Your task to perform on an android device: Open settings Image 0: 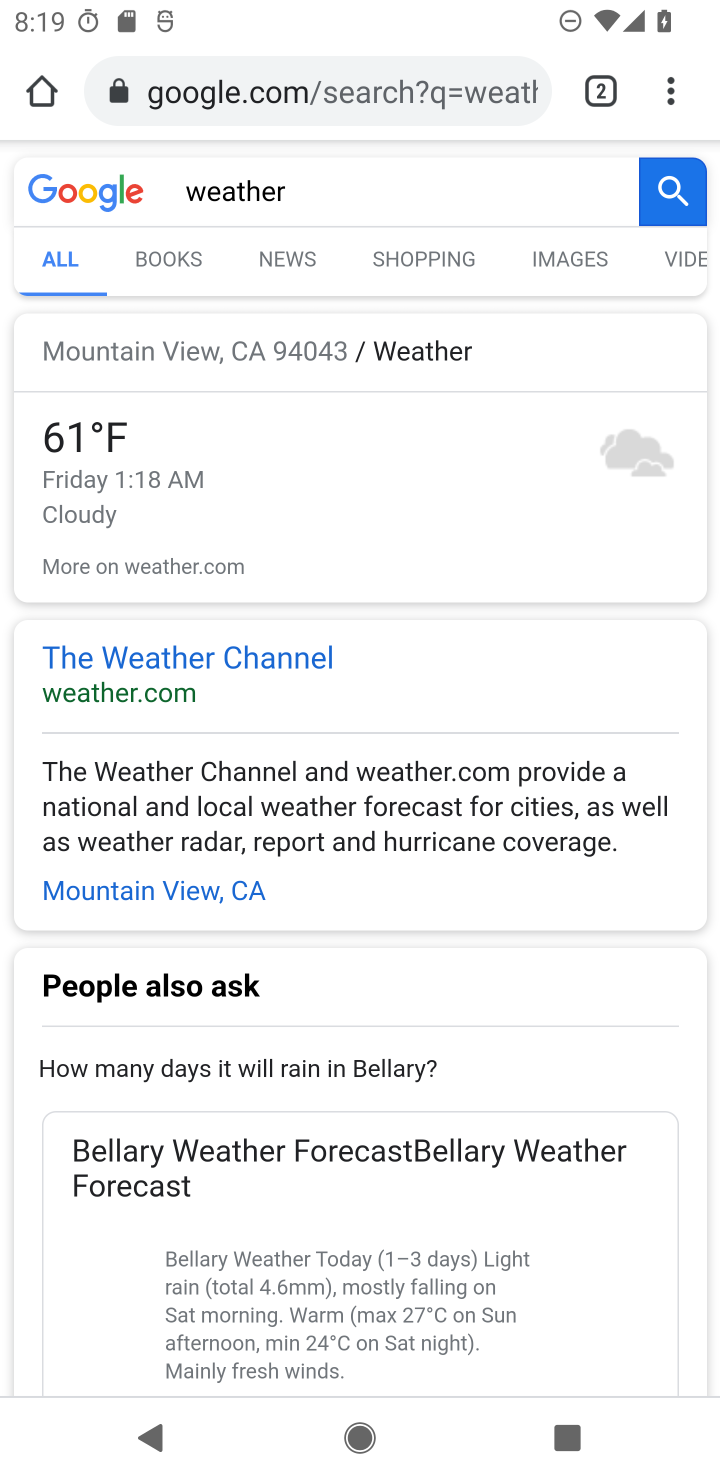
Step 0: press home button
Your task to perform on an android device: Open settings Image 1: 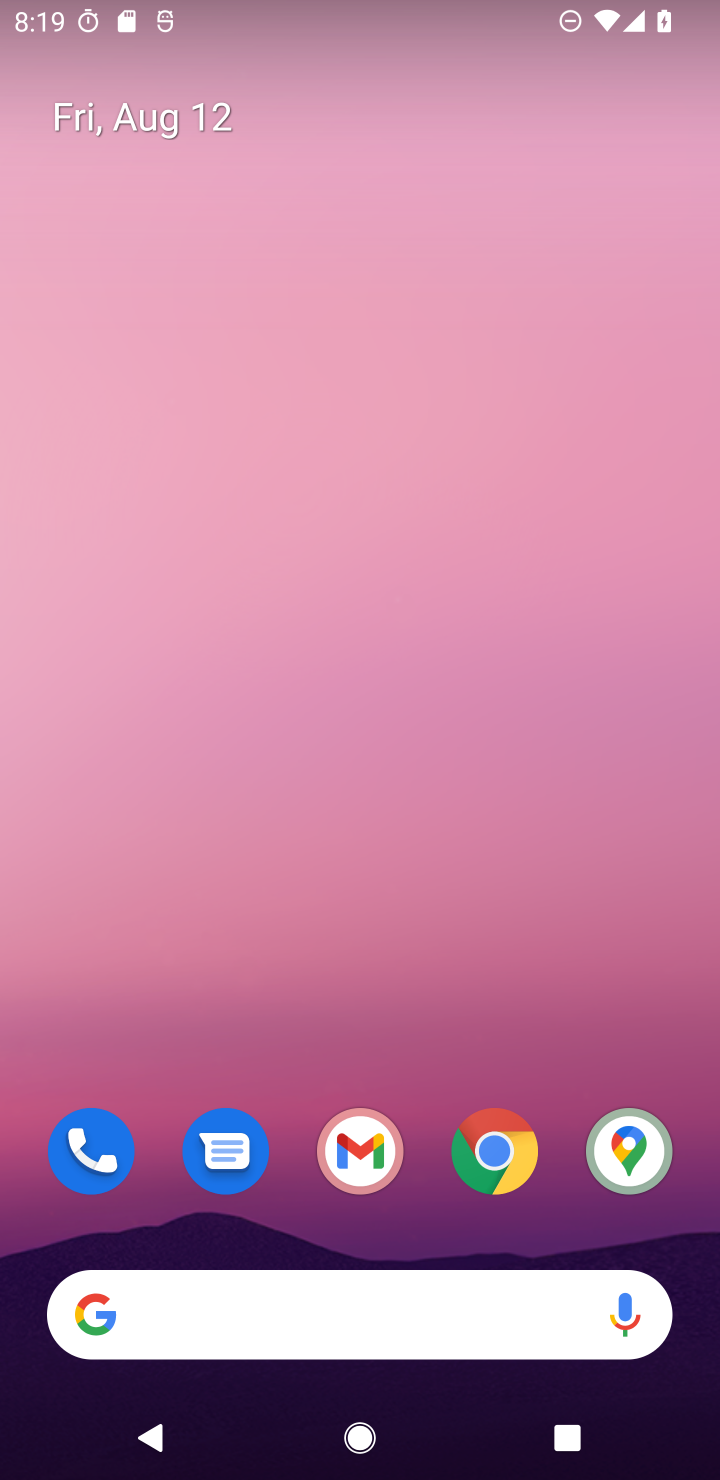
Step 1: drag from (397, 1010) to (513, 0)
Your task to perform on an android device: Open settings Image 2: 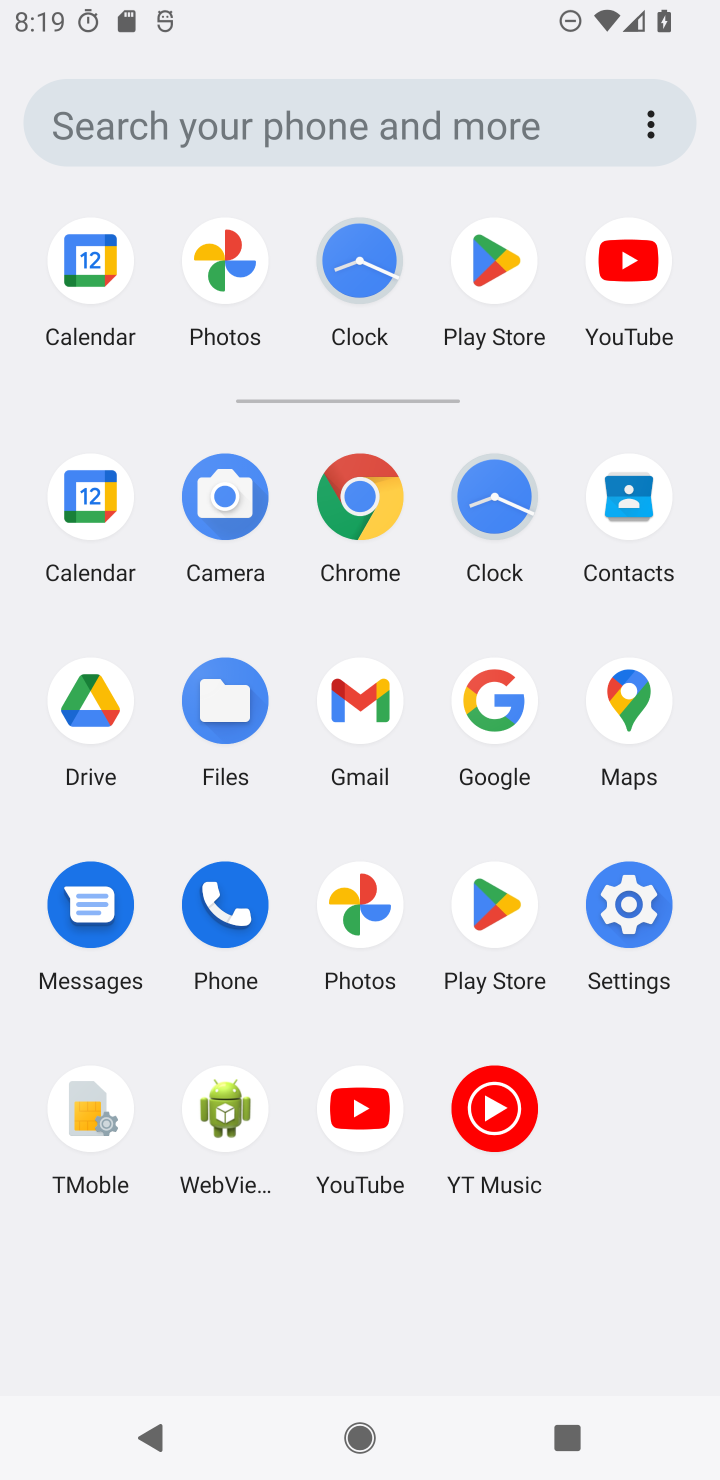
Step 2: click (653, 909)
Your task to perform on an android device: Open settings Image 3: 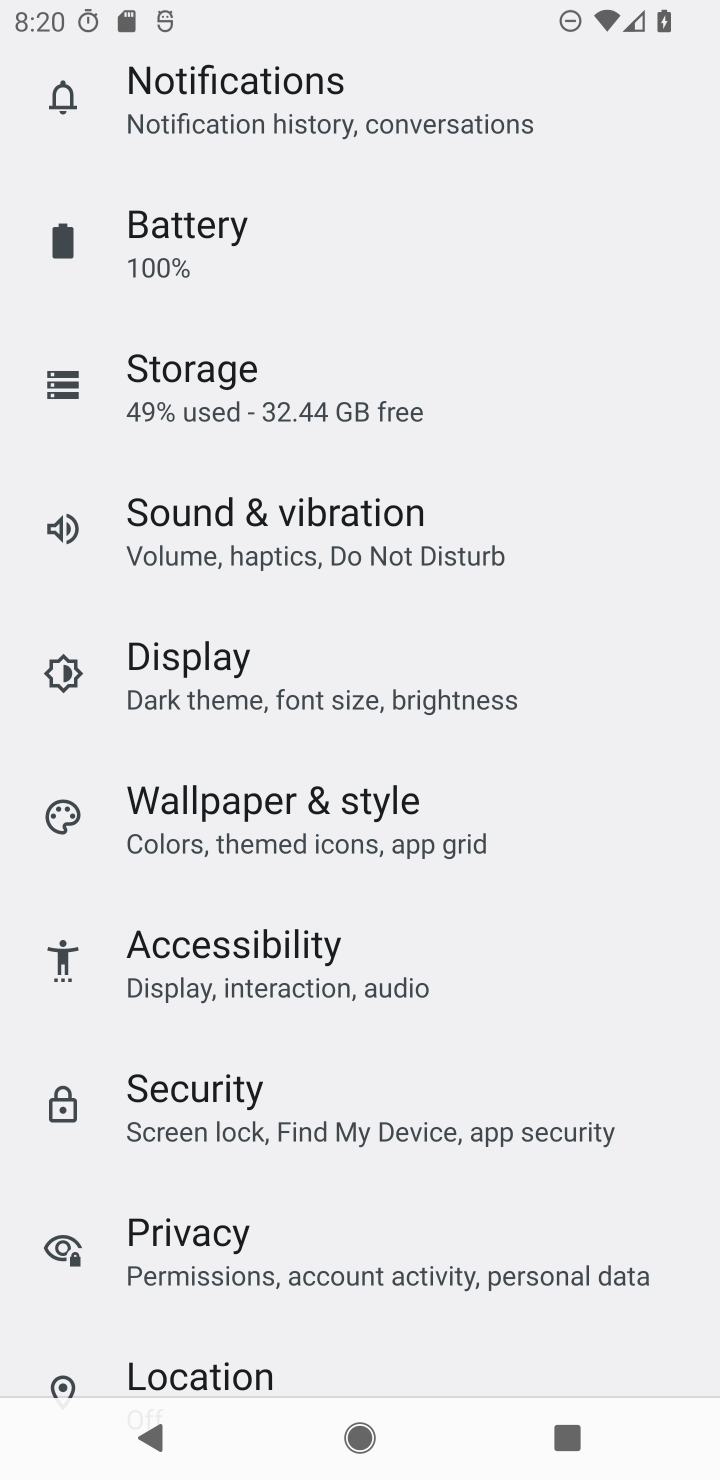
Step 3: task complete